Your task to perform on an android device: turn off location Image 0: 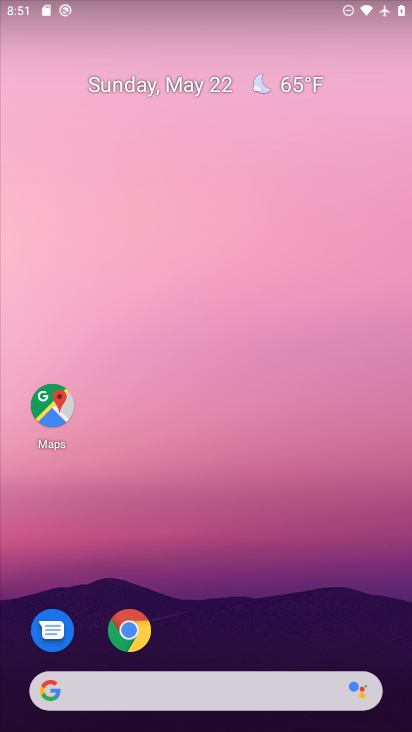
Step 0: drag from (168, 694) to (300, 198)
Your task to perform on an android device: turn off location Image 1: 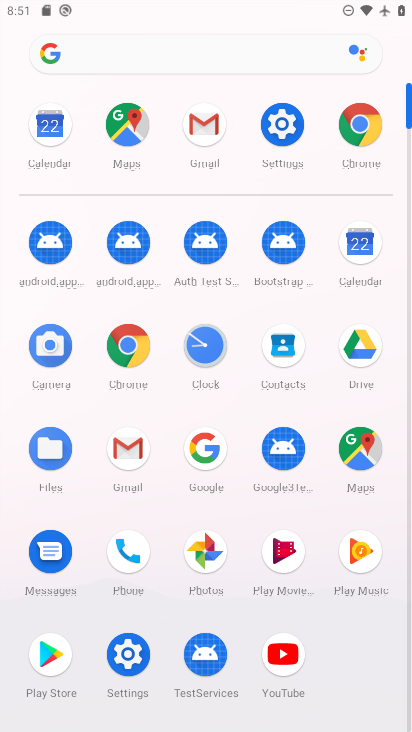
Step 1: click (288, 130)
Your task to perform on an android device: turn off location Image 2: 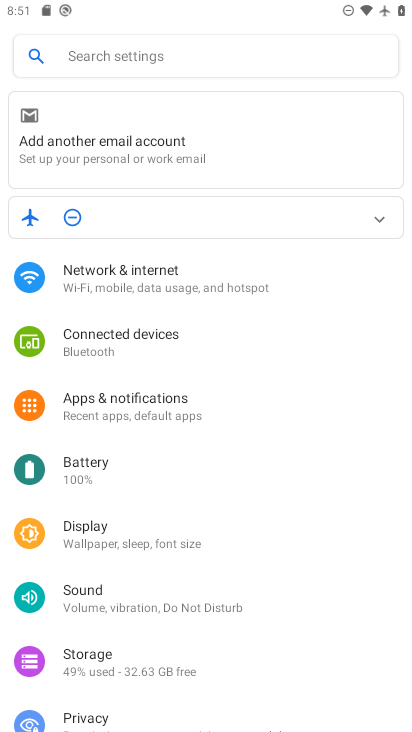
Step 2: drag from (286, 550) to (358, 258)
Your task to perform on an android device: turn off location Image 3: 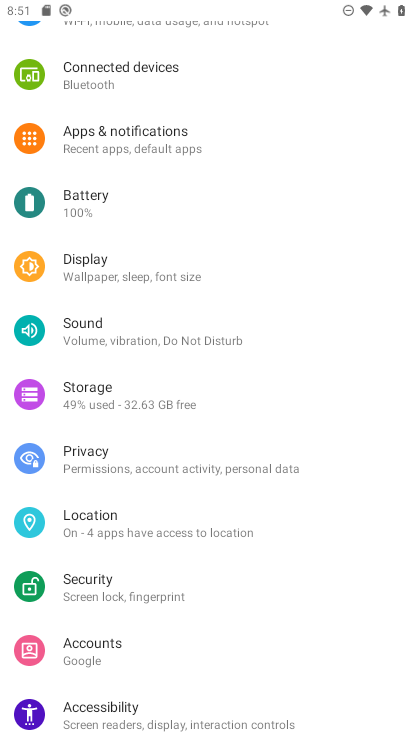
Step 3: click (131, 526)
Your task to perform on an android device: turn off location Image 4: 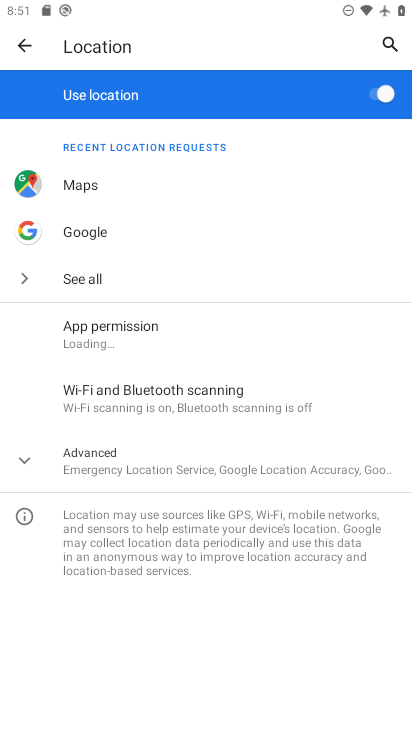
Step 4: click (375, 94)
Your task to perform on an android device: turn off location Image 5: 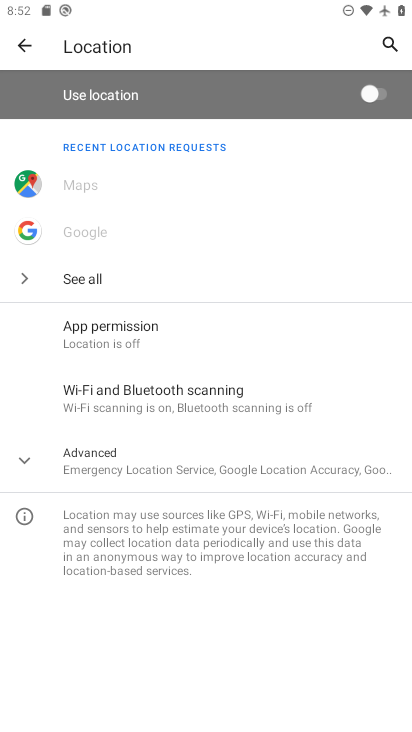
Step 5: task complete